Your task to perform on an android device: Open wifi settings Image 0: 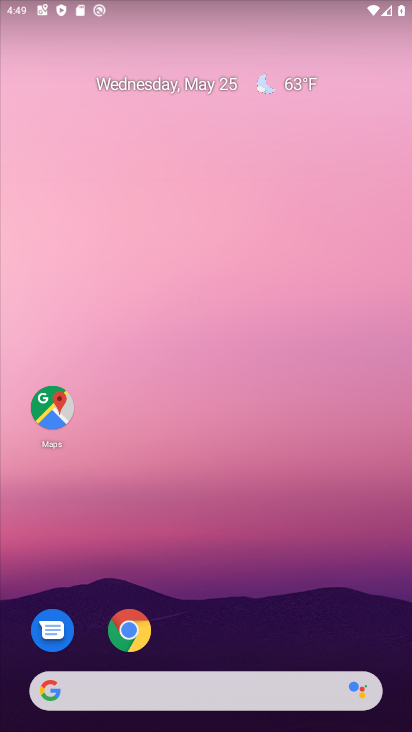
Step 0: drag from (76, 59) to (219, 541)
Your task to perform on an android device: Open wifi settings Image 1: 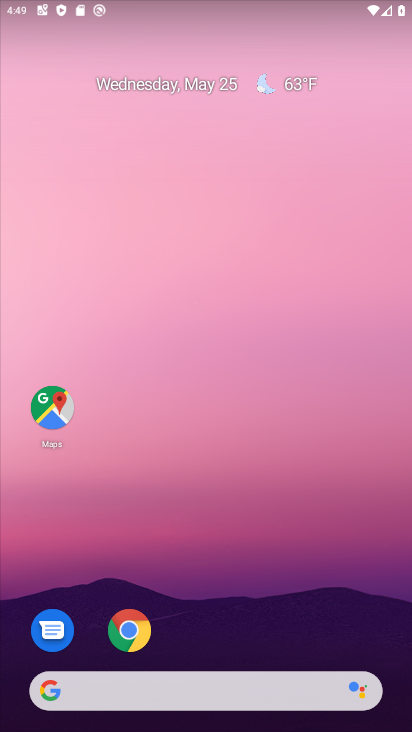
Step 1: drag from (64, 9) to (131, 489)
Your task to perform on an android device: Open wifi settings Image 2: 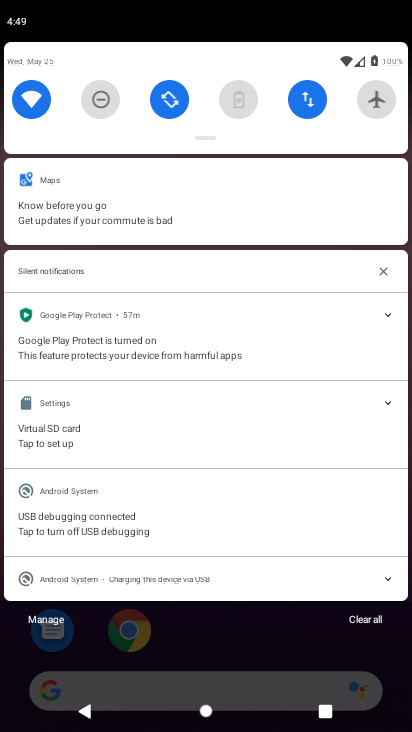
Step 2: click (33, 98)
Your task to perform on an android device: Open wifi settings Image 3: 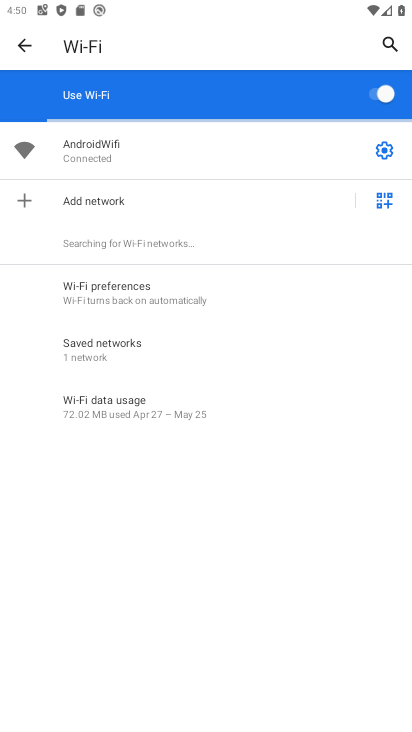
Step 3: task complete